Your task to perform on an android device: Open Yahoo.com Image 0: 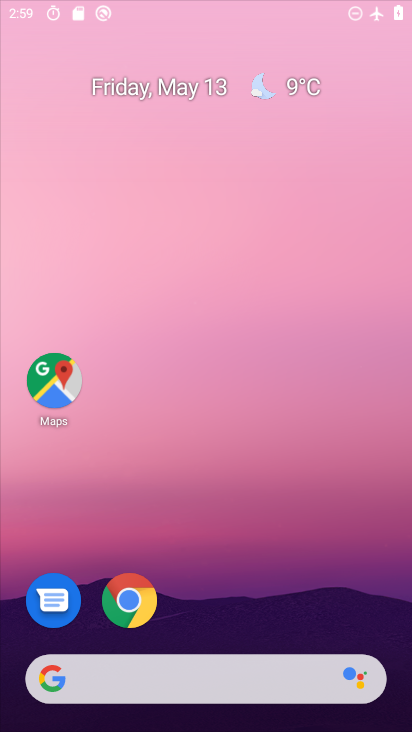
Step 0: click (232, 121)
Your task to perform on an android device: Open Yahoo.com Image 1: 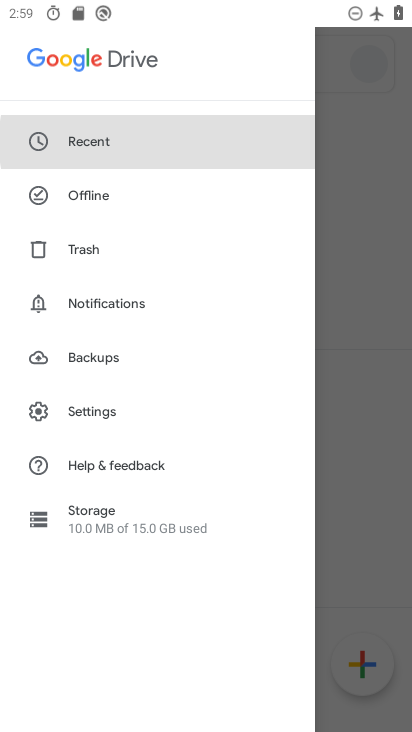
Step 1: drag from (202, 603) to (235, 126)
Your task to perform on an android device: Open Yahoo.com Image 2: 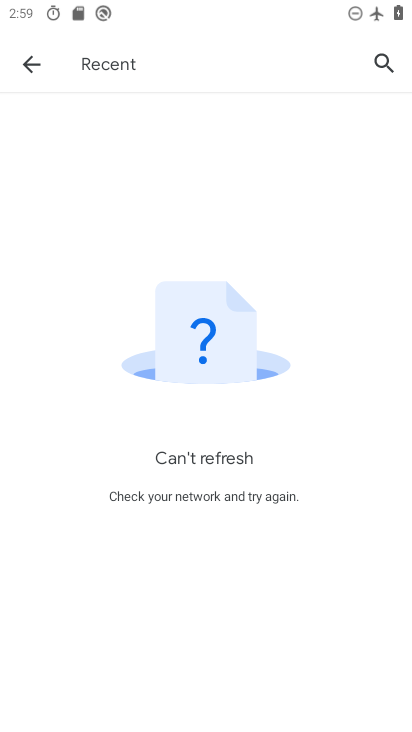
Step 2: press home button
Your task to perform on an android device: Open Yahoo.com Image 3: 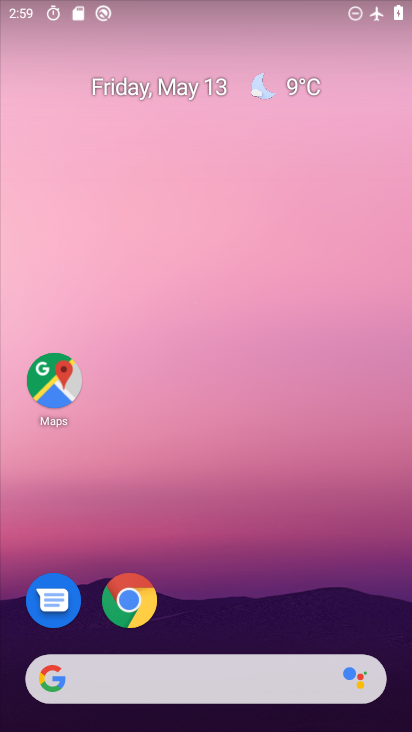
Step 3: drag from (200, 621) to (254, 170)
Your task to perform on an android device: Open Yahoo.com Image 4: 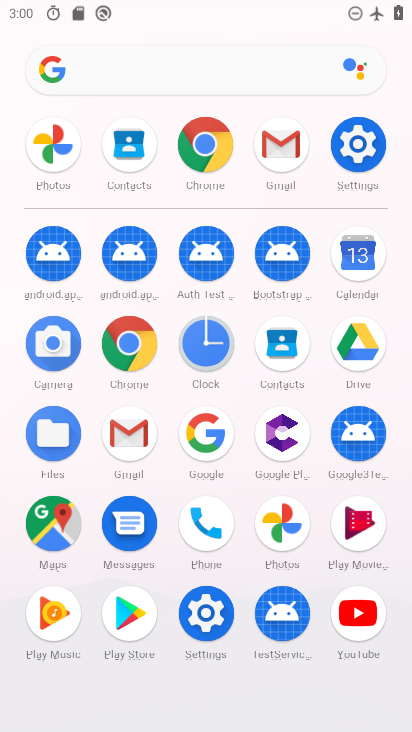
Step 4: click (201, 65)
Your task to perform on an android device: Open Yahoo.com Image 5: 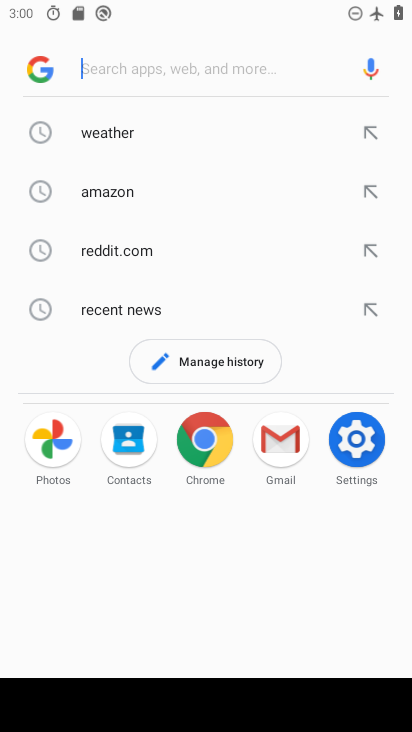
Step 5: click (141, 75)
Your task to perform on an android device: Open Yahoo.com Image 6: 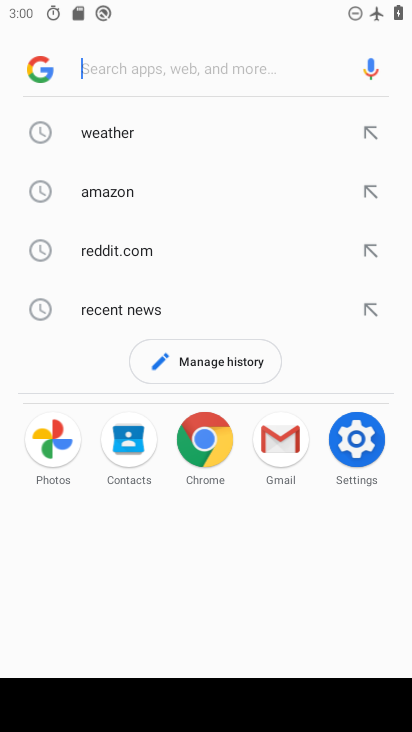
Step 6: type "yahoo.com"
Your task to perform on an android device: Open Yahoo.com Image 7: 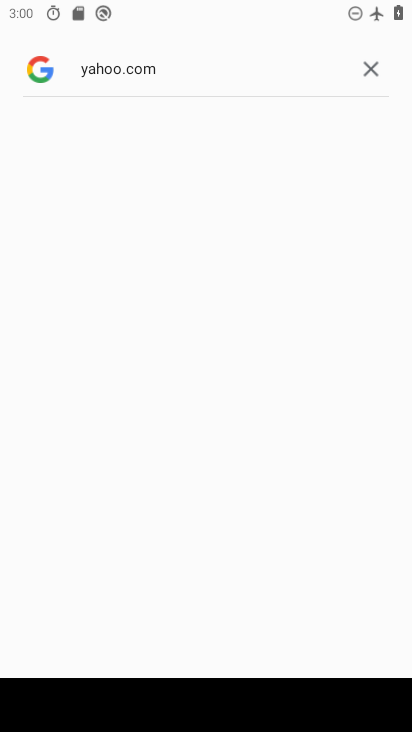
Step 7: task complete